Your task to perform on an android device: What is the recent news? Image 0: 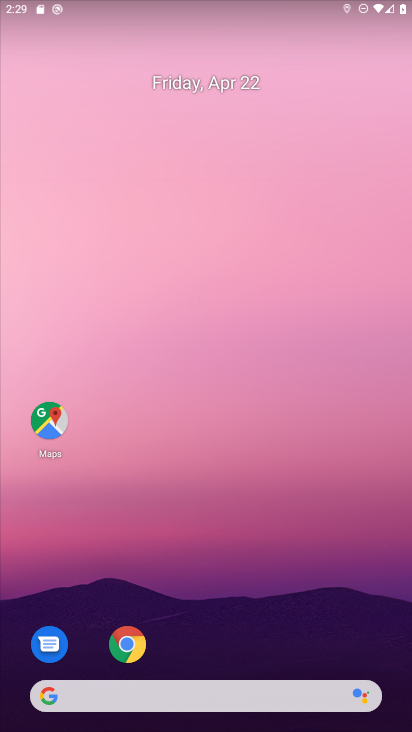
Step 0: drag from (275, 595) to (300, 120)
Your task to perform on an android device: What is the recent news? Image 1: 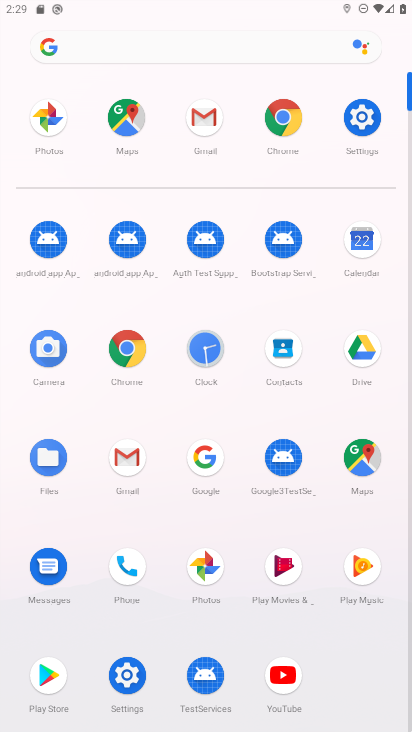
Step 1: click (125, 350)
Your task to perform on an android device: What is the recent news? Image 2: 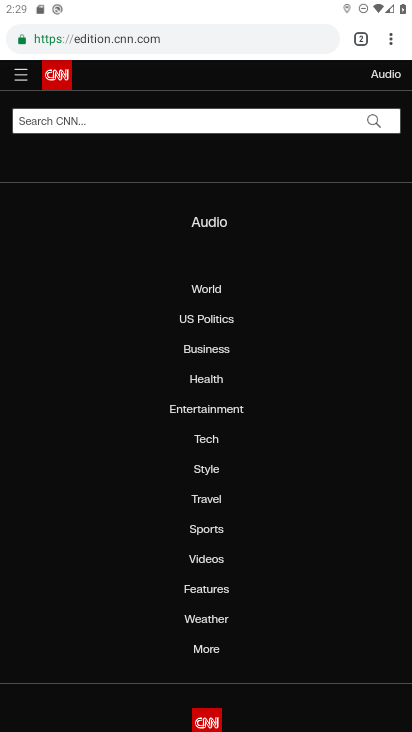
Step 2: click (214, 40)
Your task to perform on an android device: What is the recent news? Image 3: 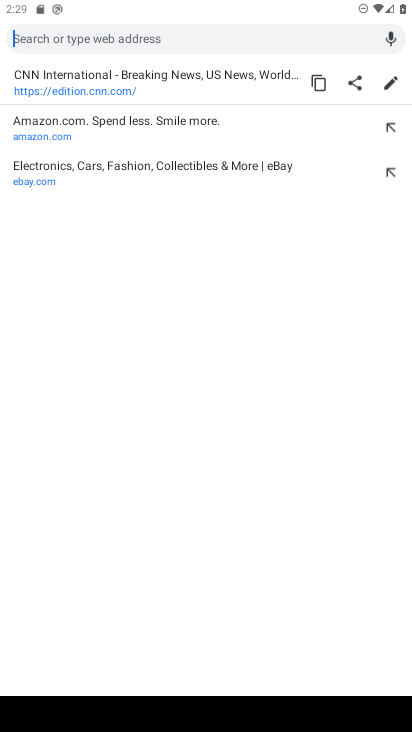
Step 3: type "news"
Your task to perform on an android device: What is the recent news? Image 4: 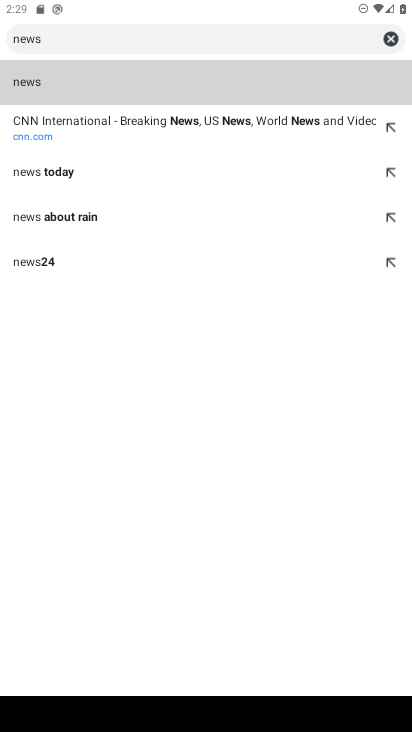
Step 4: press enter
Your task to perform on an android device: What is the recent news? Image 5: 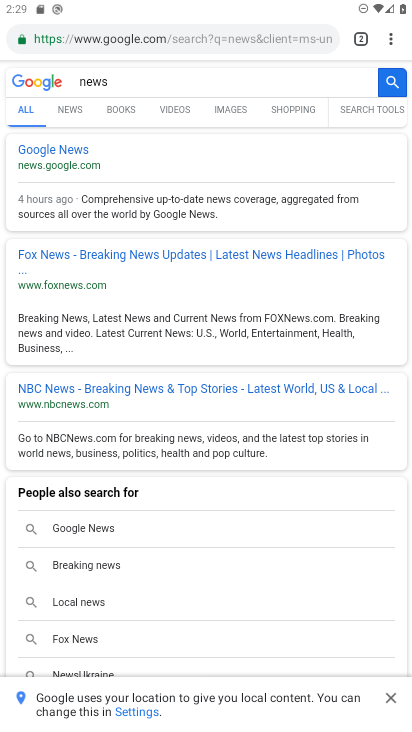
Step 5: click (75, 116)
Your task to perform on an android device: What is the recent news? Image 6: 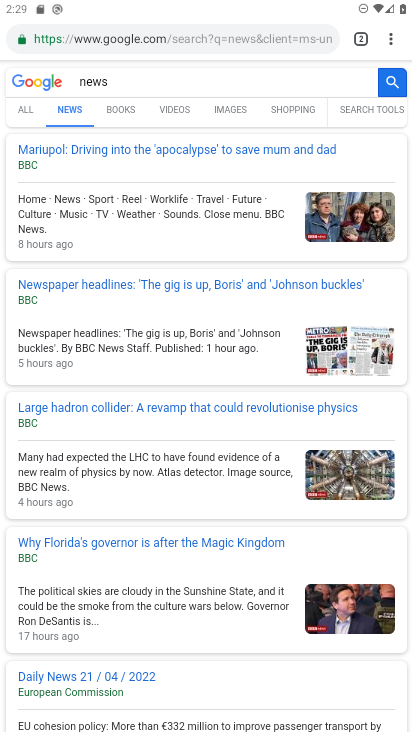
Step 6: task complete